Your task to perform on an android device: Search for amazon basics triple a on bestbuy, select the first entry, and add it to the cart. Image 0: 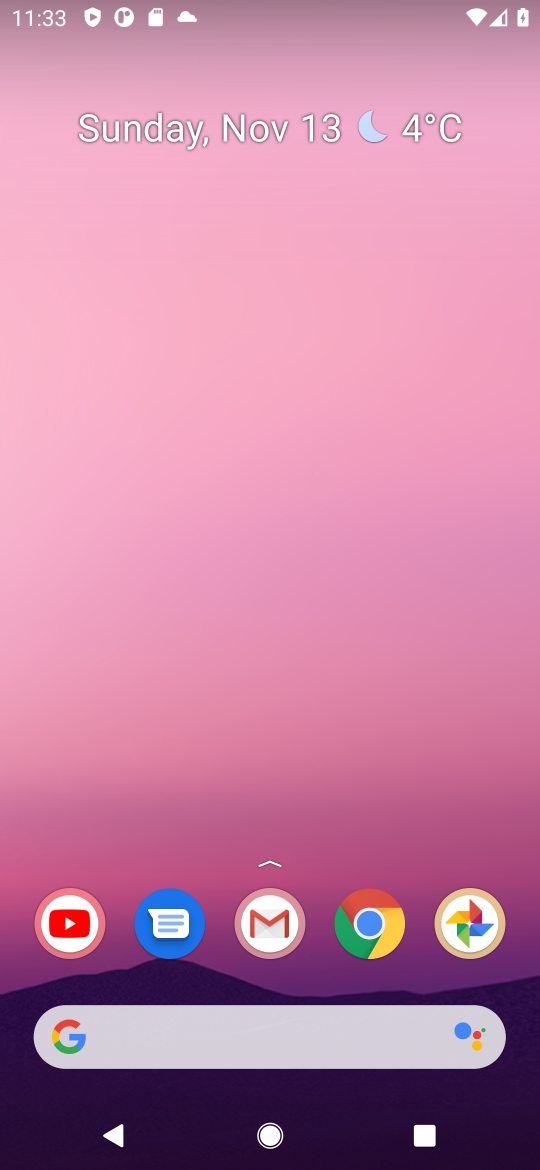
Step 0: click (373, 924)
Your task to perform on an android device: Search for amazon basics triple a on bestbuy, select the first entry, and add it to the cart. Image 1: 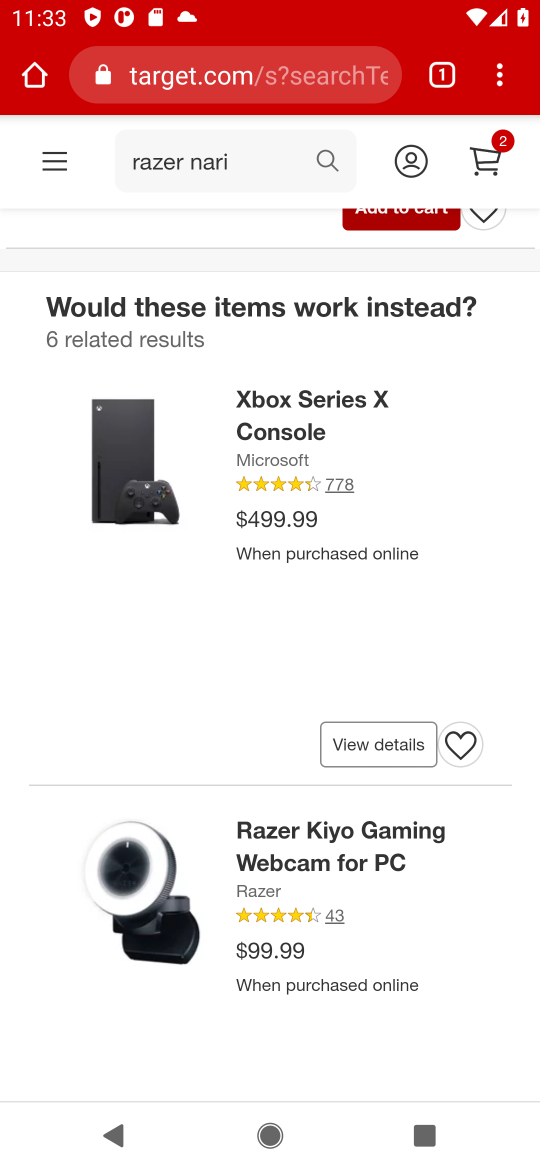
Step 1: click (349, 73)
Your task to perform on an android device: Search for amazon basics triple a on bestbuy, select the first entry, and add it to the cart. Image 2: 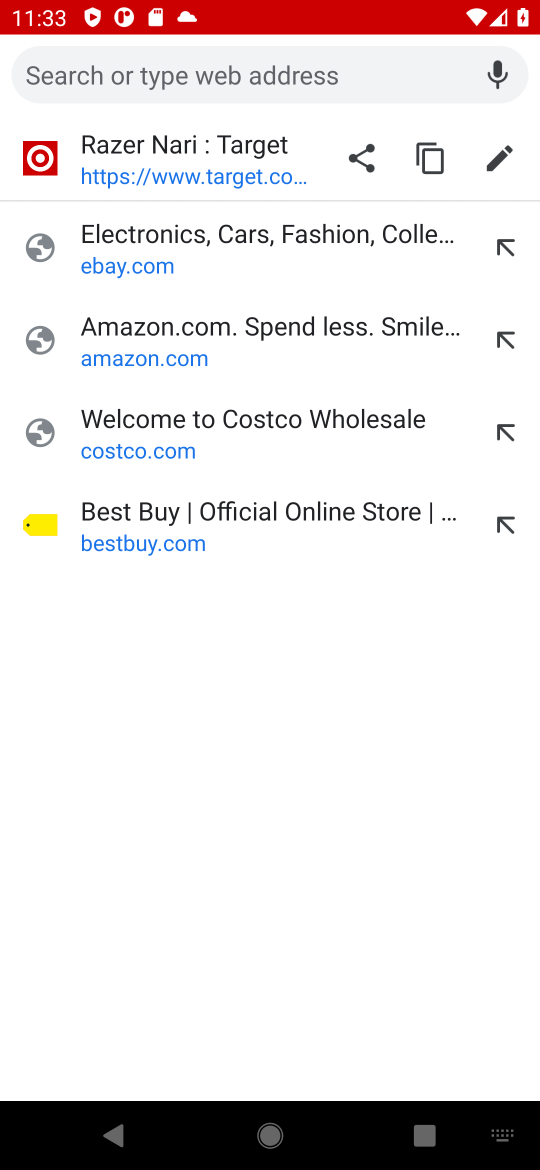
Step 2: click (300, 508)
Your task to perform on an android device: Search for amazon basics triple a on bestbuy, select the first entry, and add it to the cart. Image 3: 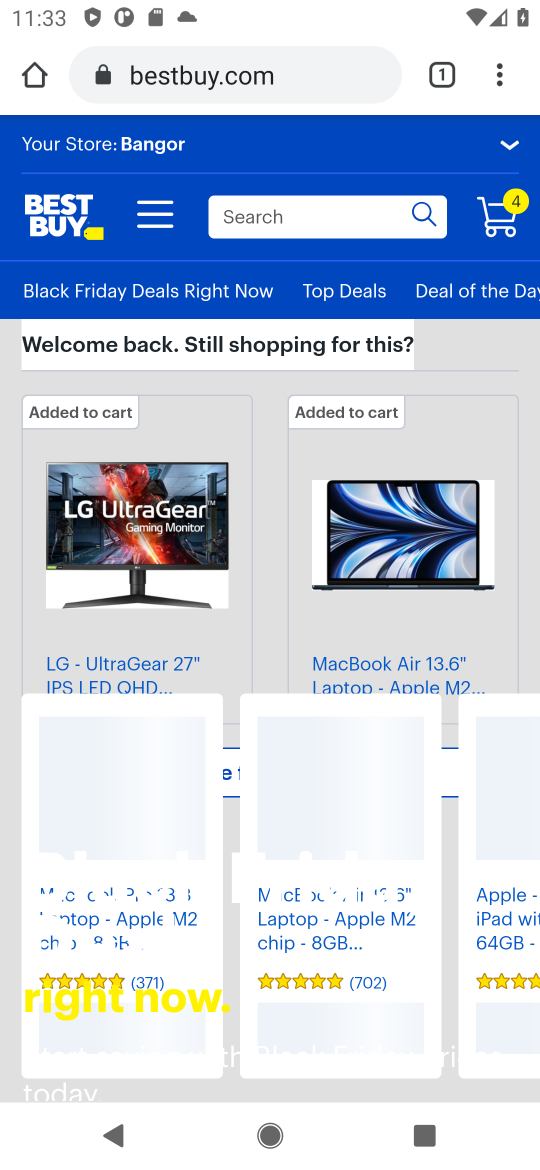
Step 3: click (356, 205)
Your task to perform on an android device: Search for amazon basics triple a on bestbuy, select the first entry, and add it to the cart. Image 4: 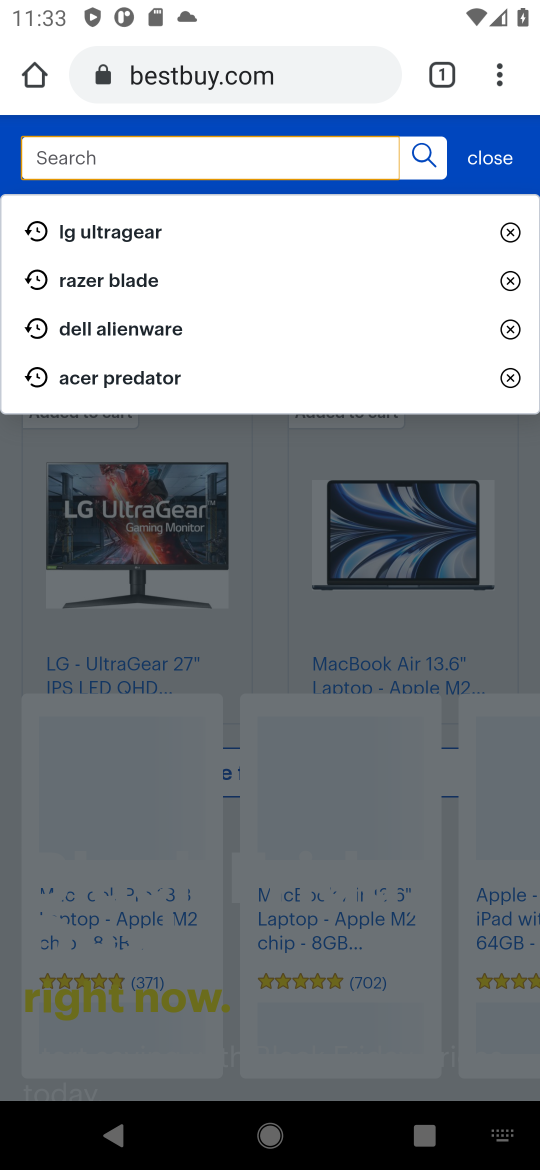
Step 4: type "amazon basics triple a"
Your task to perform on an android device: Search for amazon basics triple a on bestbuy, select the first entry, and add it to the cart. Image 5: 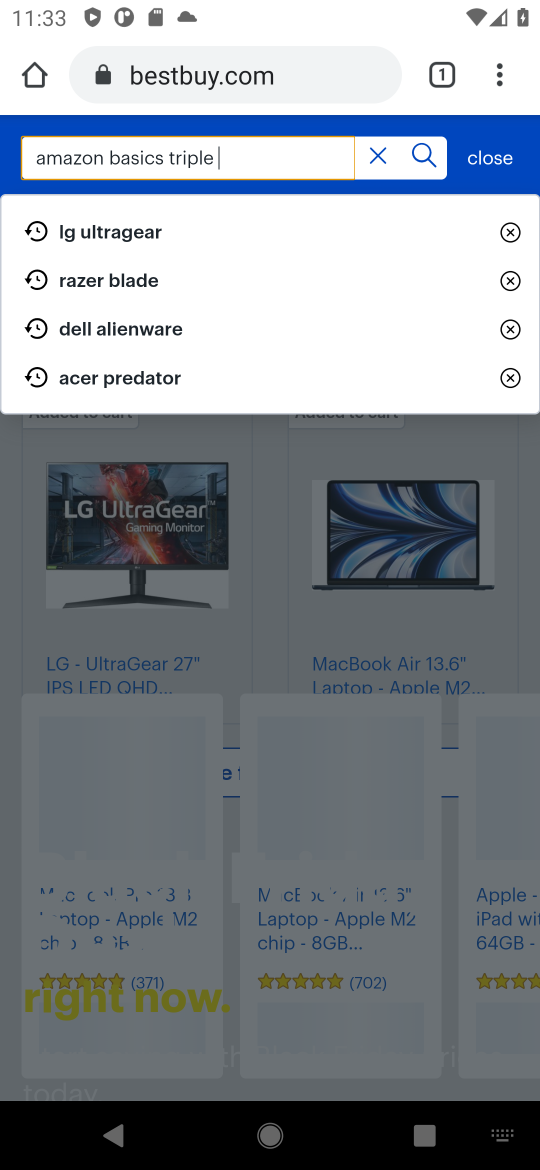
Step 5: press enter
Your task to perform on an android device: Search for amazon basics triple a on bestbuy, select the first entry, and add it to the cart. Image 6: 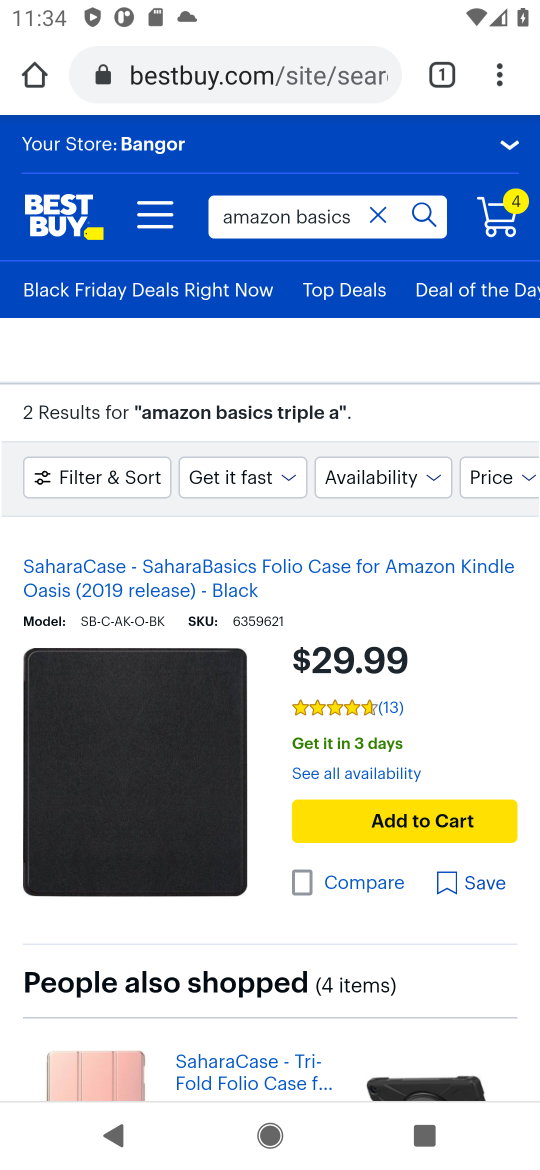
Step 6: task complete